Your task to perform on an android device: Go to location settings Image 0: 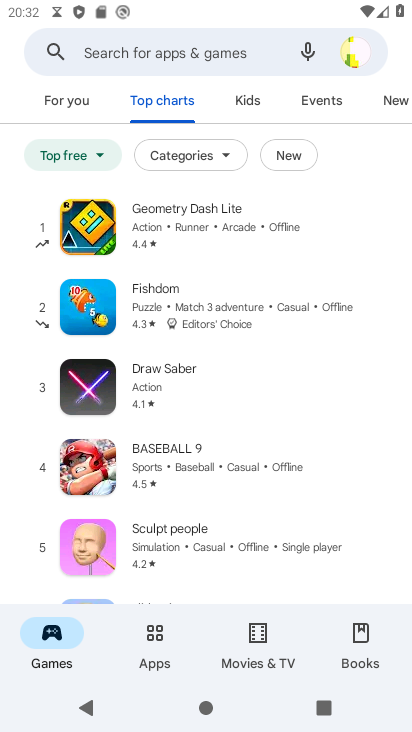
Step 0: drag from (233, 500) to (239, 291)
Your task to perform on an android device: Go to location settings Image 1: 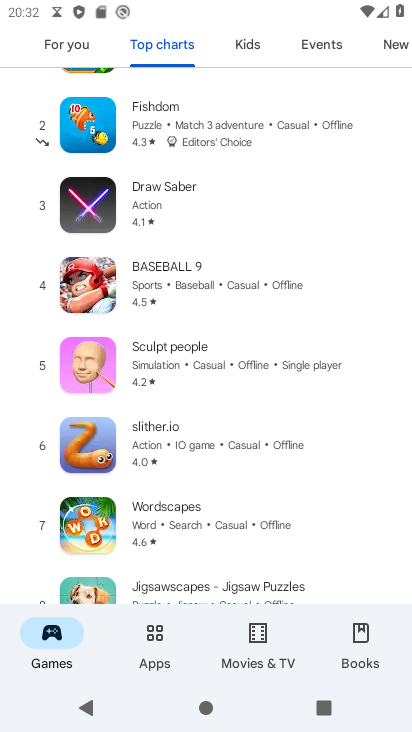
Step 1: press home button
Your task to perform on an android device: Go to location settings Image 2: 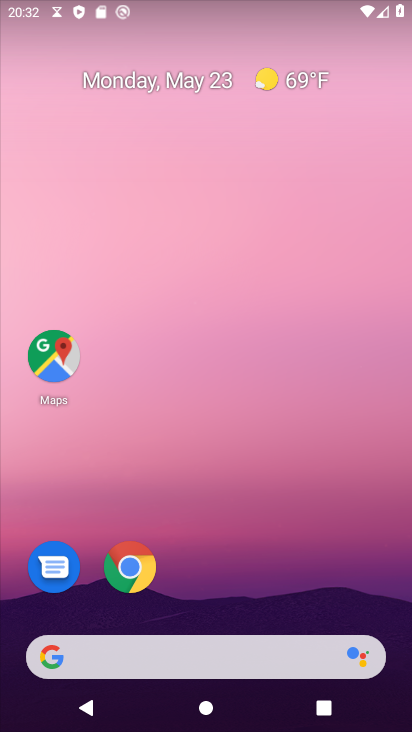
Step 2: drag from (229, 586) to (297, 97)
Your task to perform on an android device: Go to location settings Image 3: 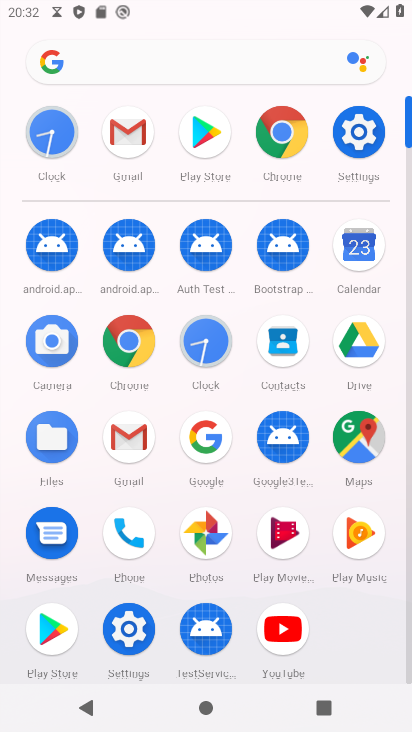
Step 3: click (129, 633)
Your task to perform on an android device: Go to location settings Image 4: 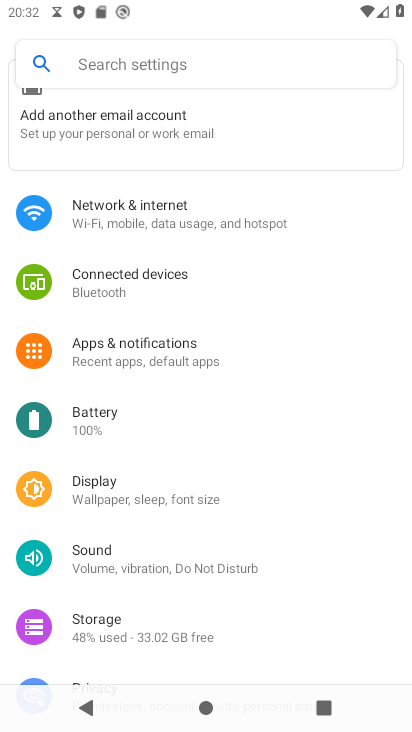
Step 4: drag from (126, 578) to (149, 416)
Your task to perform on an android device: Go to location settings Image 5: 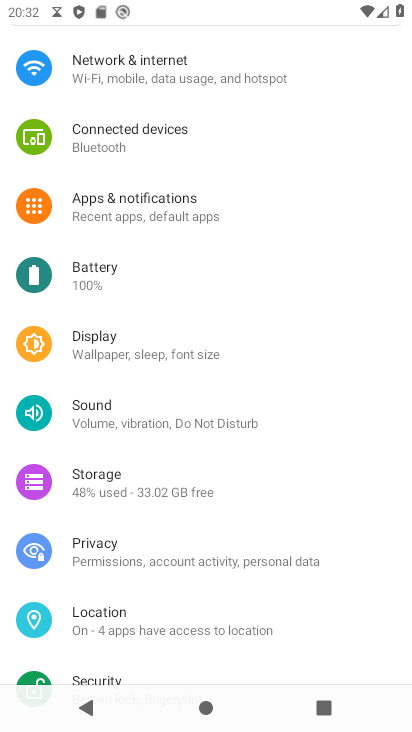
Step 5: click (106, 619)
Your task to perform on an android device: Go to location settings Image 6: 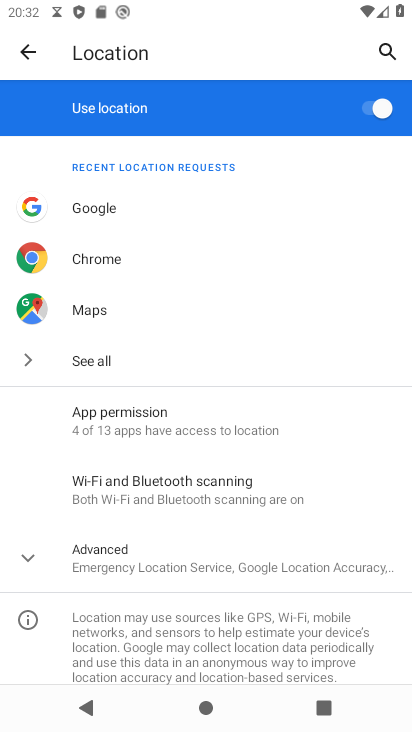
Step 6: task complete